Your task to perform on an android device: Open privacy settings Image 0: 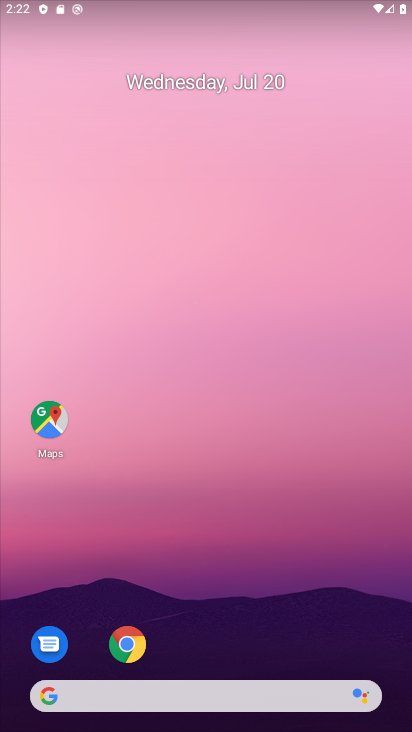
Step 0: task complete